Your task to perform on an android device: Open the web browser Image 0: 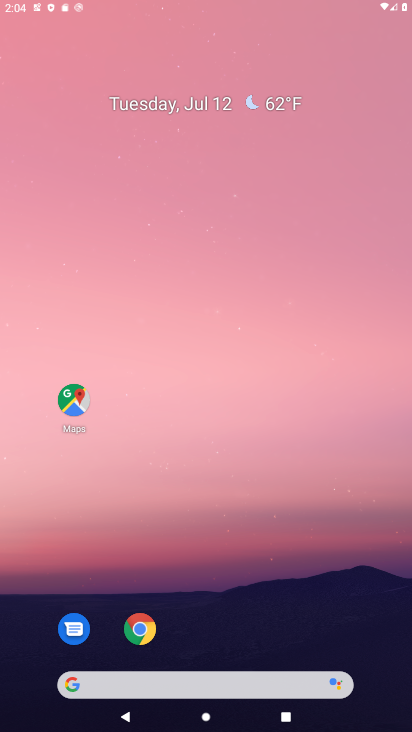
Step 0: press home button
Your task to perform on an android device: Open the web browser Image 1: 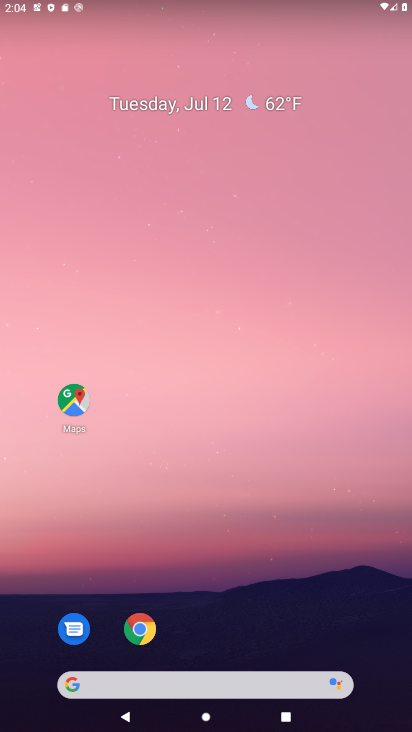
Step 1: drag from (229, 644) to (220, 36)
Your task to perform on an android device: Open the web browser Image 2: 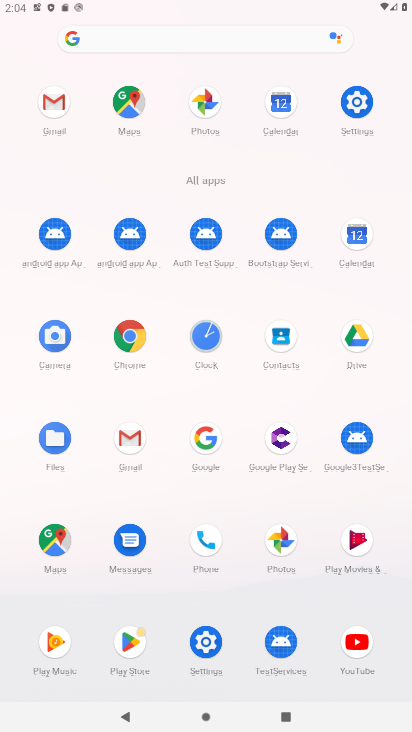
Step 2: click (127, 327)
Your task to perform on an android device: Open the web browser Image 3: 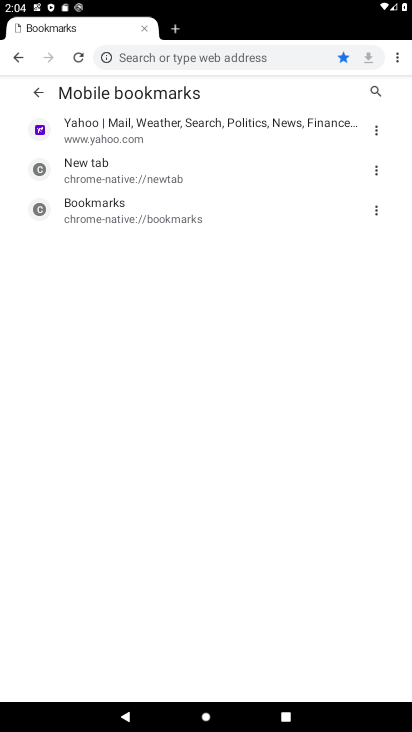
Step 3: click (179, 26)
Your task to perform on an android device: Open the web browser Image 4: 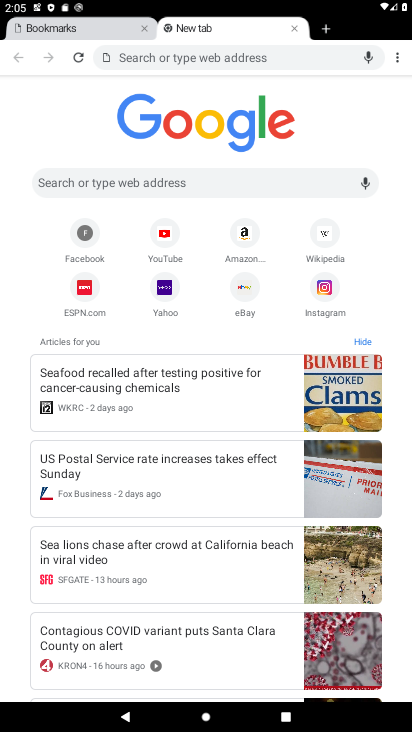
Step 4: task complete